Your task to perform on an android device: check battery use Image 0: 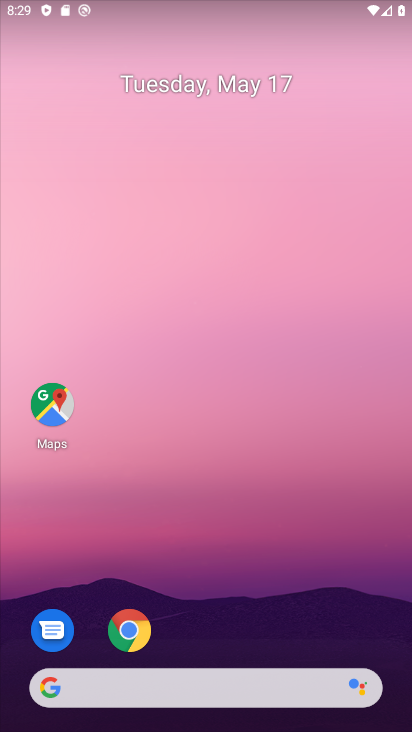
Step 0: drag from (234, 645) to (297, 24)
Your task to perform on an android device: check battery use Image 1: 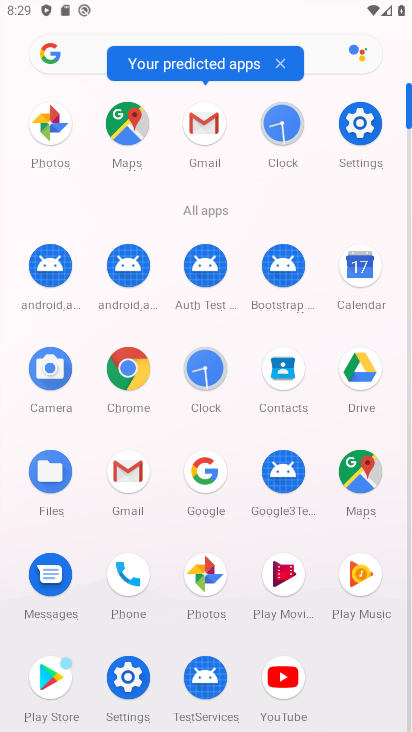
Step 1: click (364, 129)
Your task to perform on an android device: check battery use Image 2: 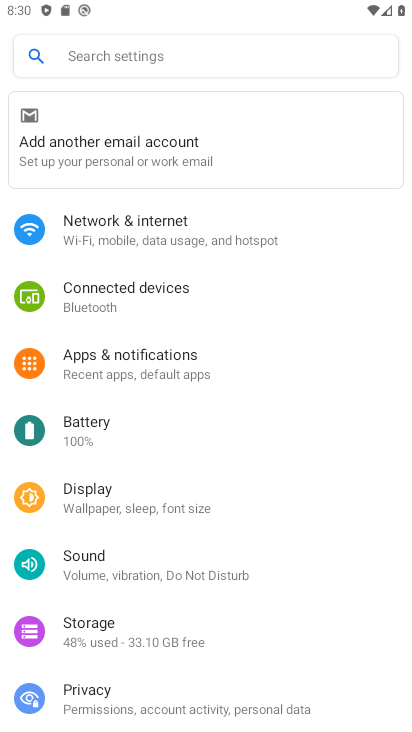
Step 2: click (139, 436)
Your task to perform on an android device: check battery use Image 3: 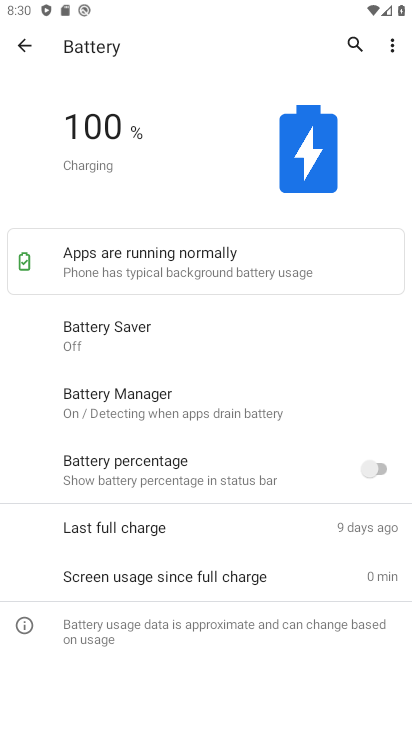
Step 3: task complete